Your task to perform on an android device: Open display settings Image 0: 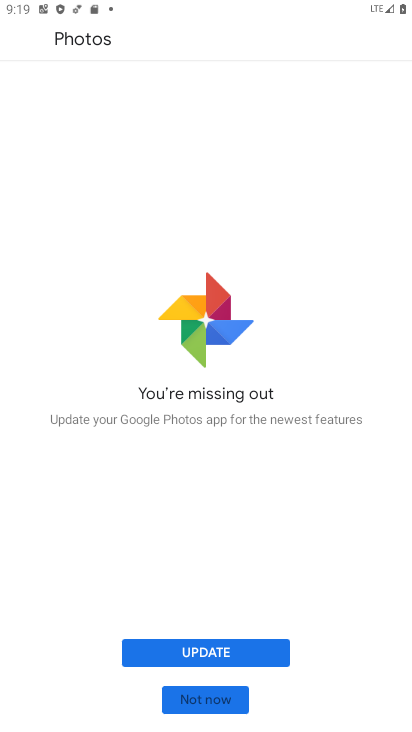
Step 0: press home button
Your task to perform on an android device: Open display settings Image 1: 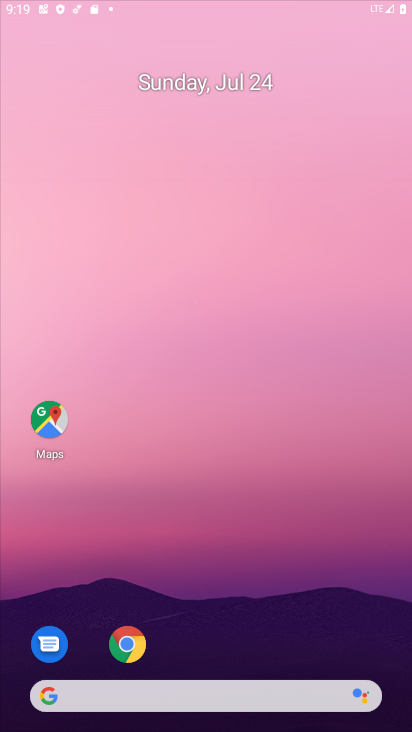
Step 1: drag from (44, 642) to (287, 50)
Your task to perform on an android device: Open display settings Image 2: 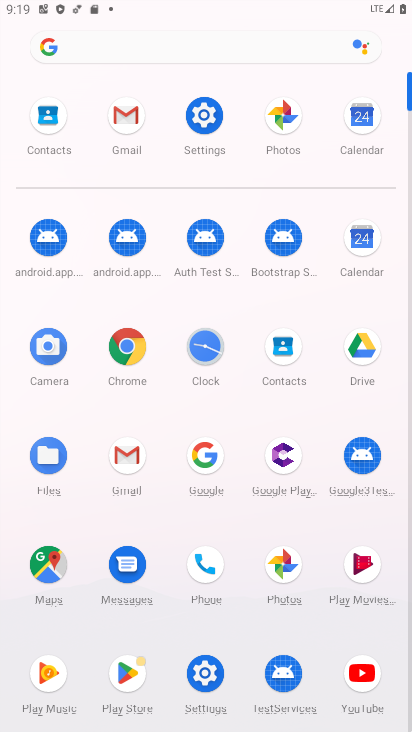
Step 2: click (213, 119)
Your task to perform on an android device: Open display settings Image 3: 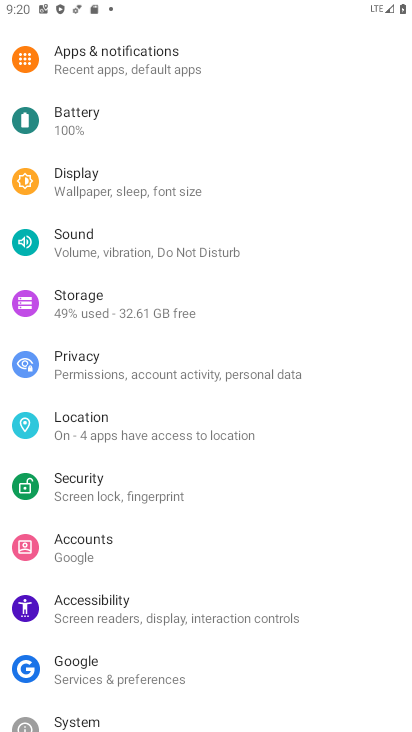
Step 3: click (182, 187)
Your task to perform on an android device: Open display settings Image 4: 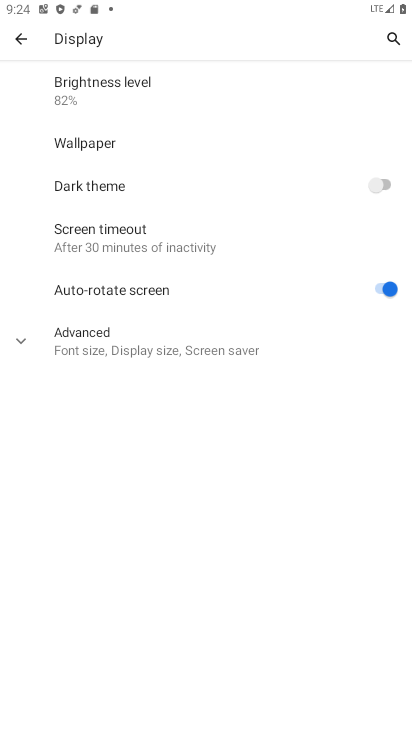
Step 4: task complete